Your task to perform on an android device: turn pop-ups off in chrome Image 0: 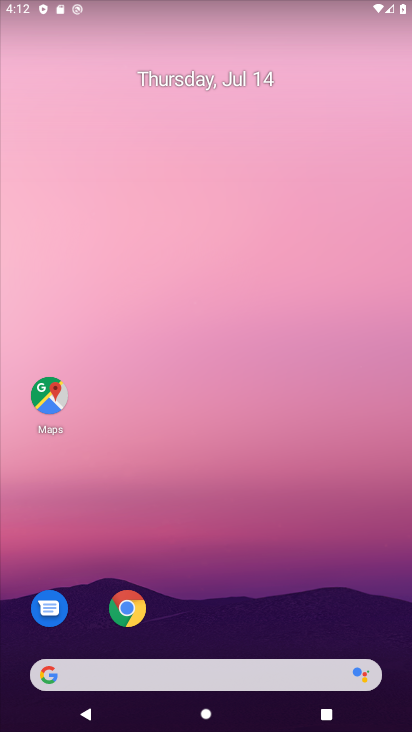
Step 0: drag from (163, 579) to (238, 141)
Your task to perform on an android device: turn pop-ups off in chrome Image 1: 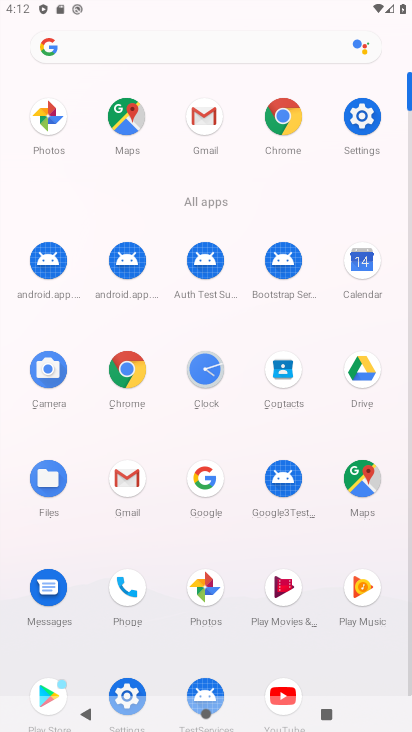
Step 1: click (116, 368)
Your task to perform on an android device: turn pop-ups off in chrome Image 2: 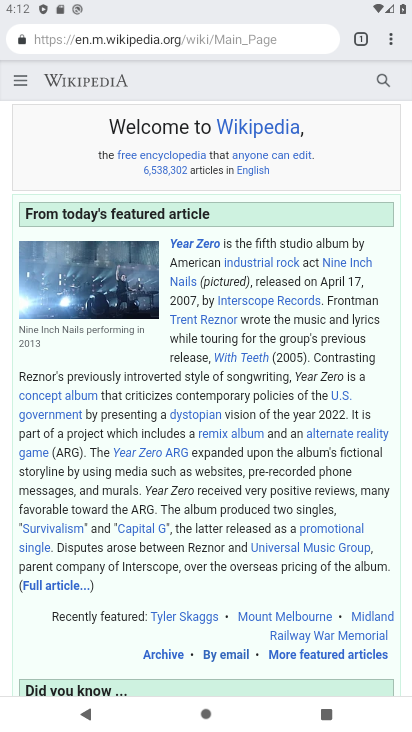
Step 2: drag from (388, 37) to (275, 460)
Your task to perform on an android device: turn pop-ups off in chrome Image 3: 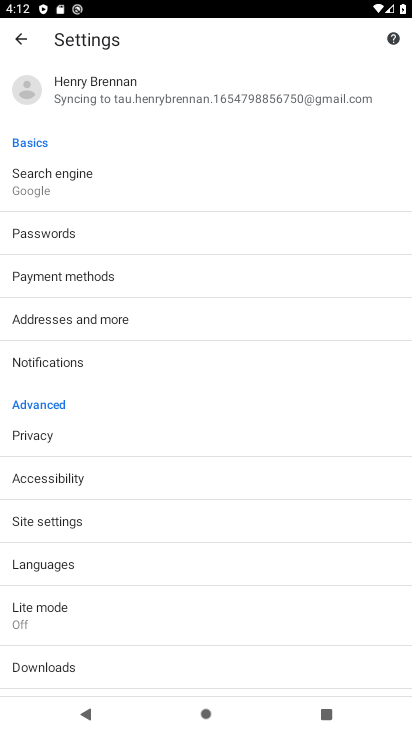
Step 3: click (87, 523)
Your task to perform on an android device: turn pop-ups off in chrome Image 4: 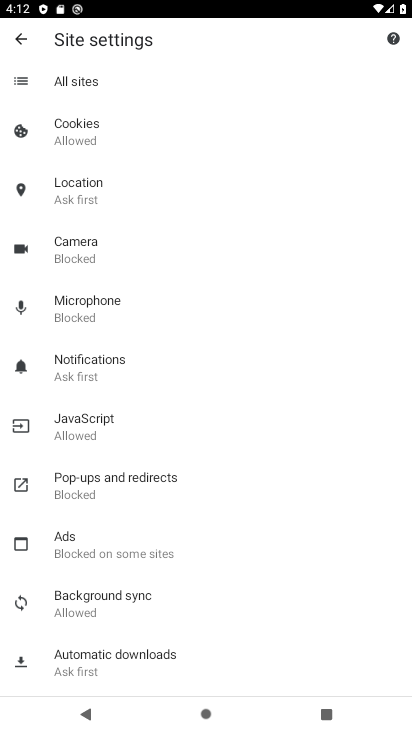
Step 4: click (149, 490)
Your task to perform on an android device: turn pop-ups off in chrome Image 5: 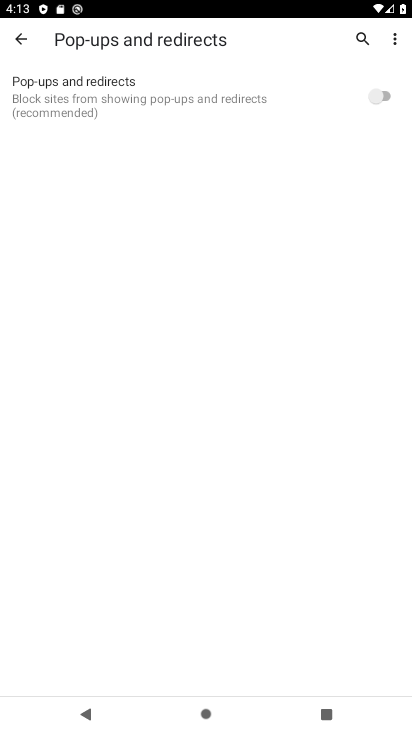
Step 5: task complete